Your task to perform on an android device: turn on improve location accuracy Image 0: 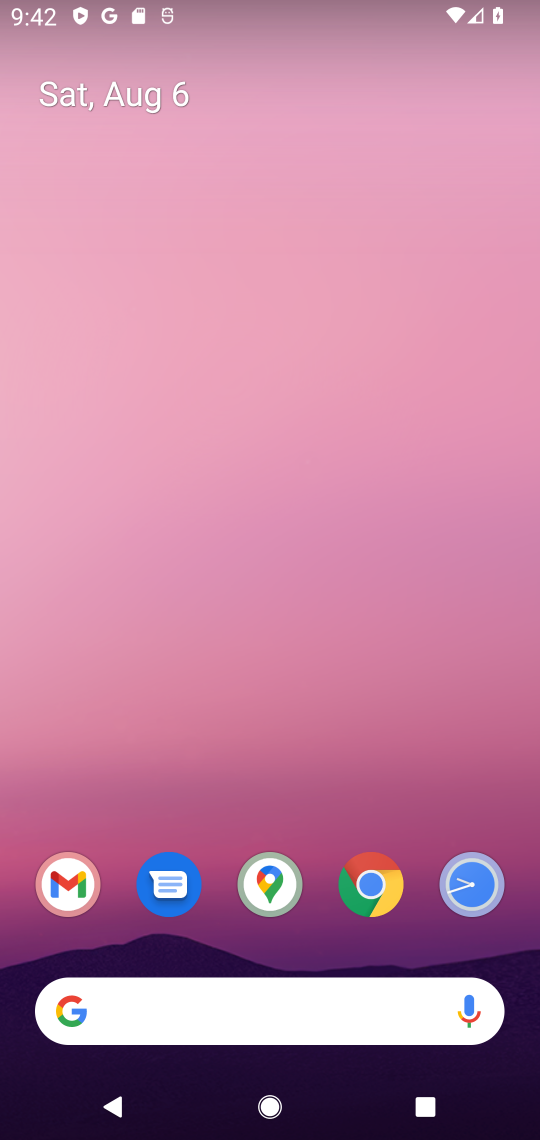
Step 0: drag from (417, 914) to (435, 142)
Your task to perform on an android device: turn on improve location accuracy Image 1: 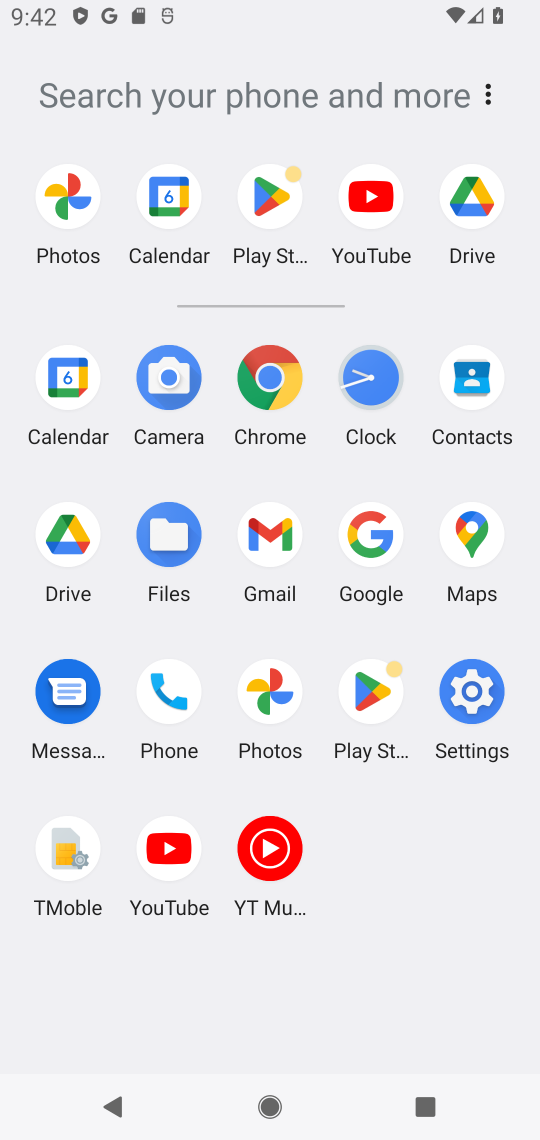
Step 1: click (471, 689)
Your task to perform on an android device: turn on improve location accuracy Image 2: 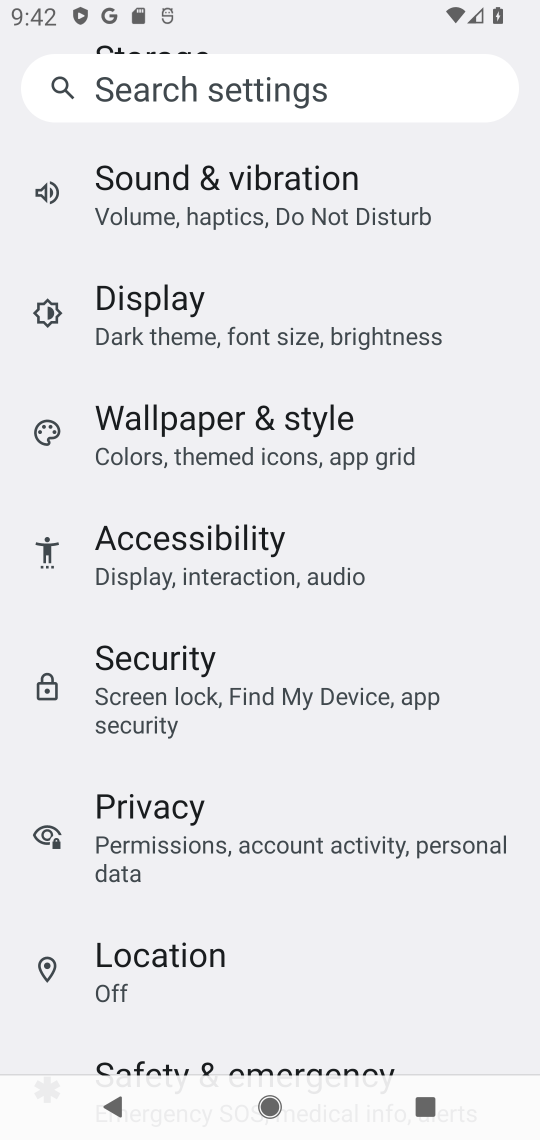
Step 2: click (135, 972)
Your task to perform on an android device: turn on improve location accuracy Image 3: 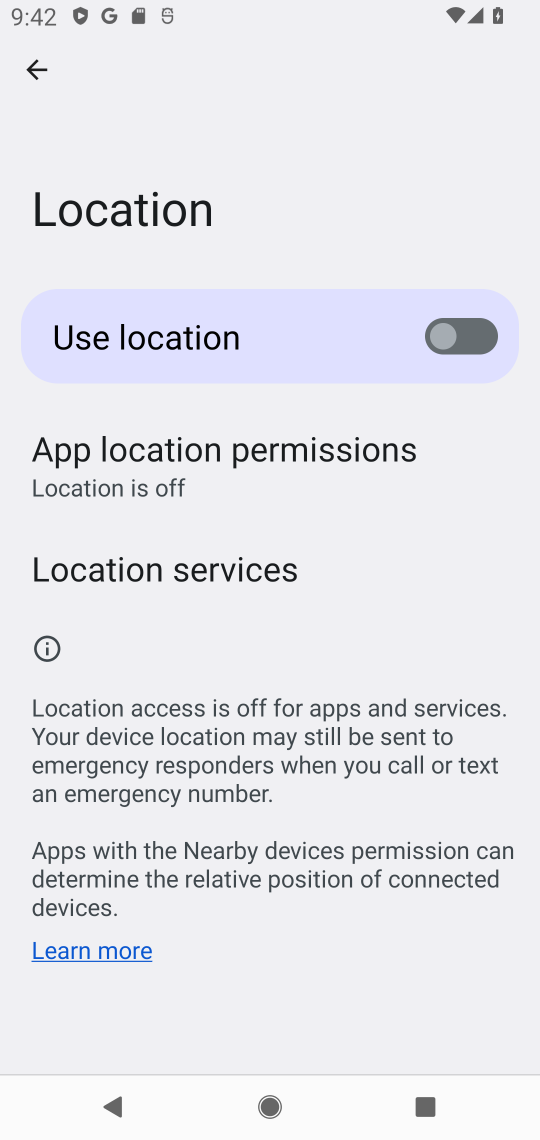
Step 3: click (195, 559)
Your task to perform on an android device: turn on improve location accuracy Image 4: 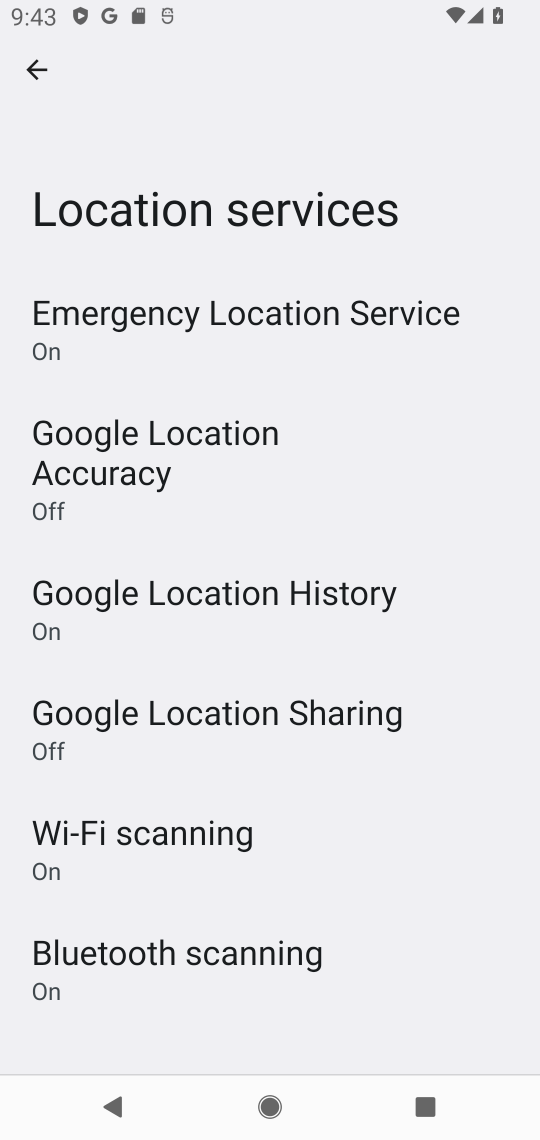
Step 4: click (149, 444)
Your task to perform on an android device: turn on improve location accuracy Image 5: 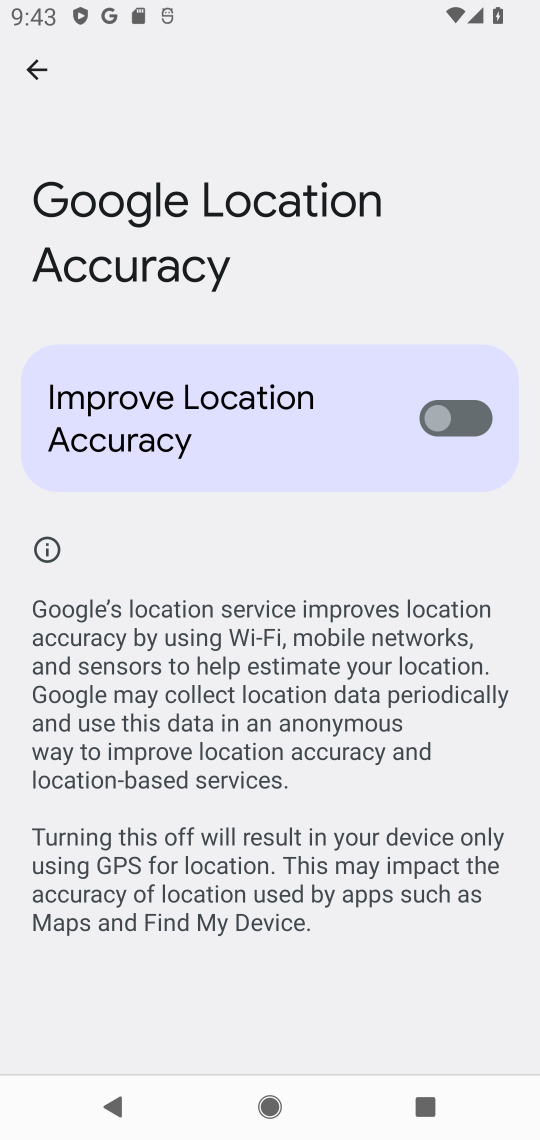
Step 5: click (473, 413)
Your task to perform on an android device: turn on improve location accuracy Image 6: 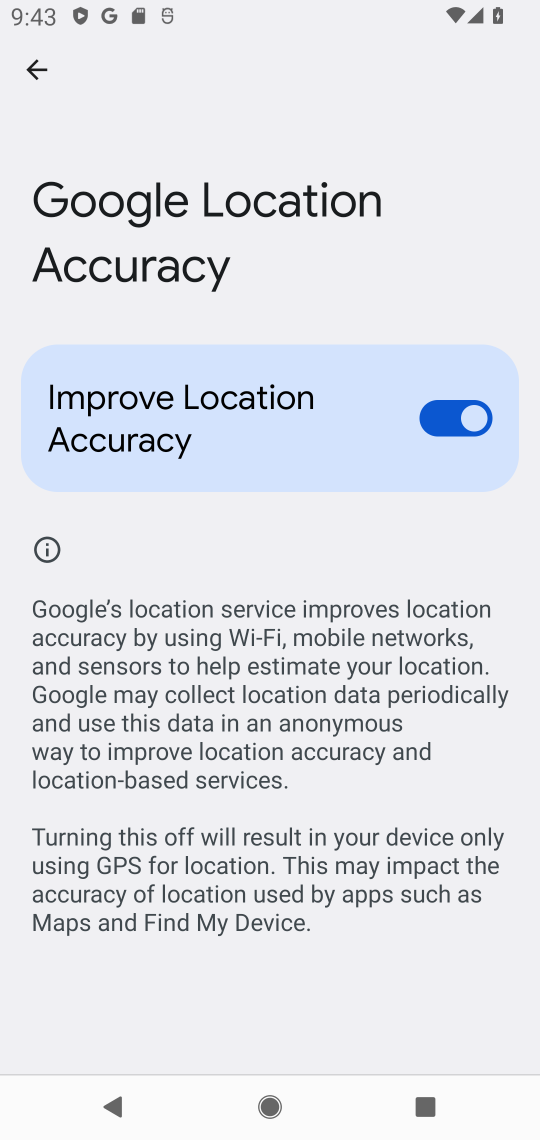
Step 6: task complete